Your task to perform on an android device: see tabs open on other devices in the chrome app Image 0: 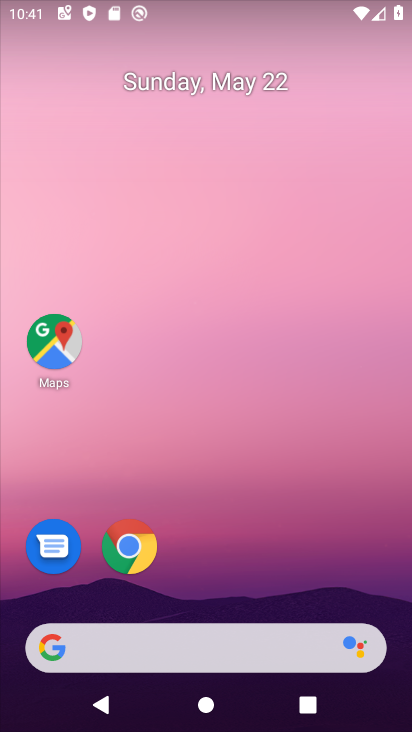
Step 0: drag from (215, 609) to (217, 25)
Your task to perform on an android device: see tabs open on other devices in the chrome app Image 1: 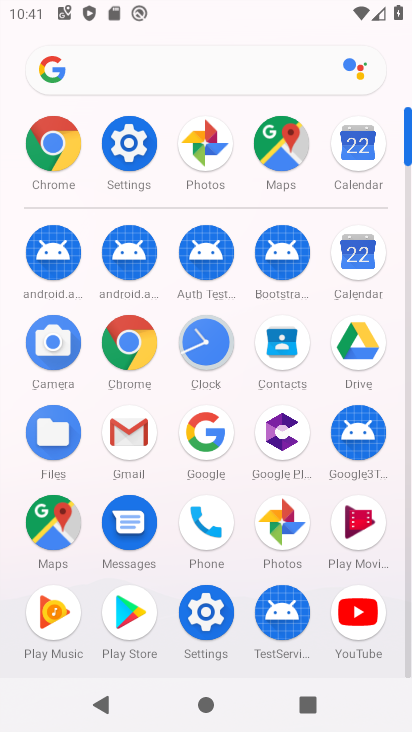
Step 1: click (132, 354)
Your task to perform on an android device: see tabs open on other devices in the chrome app Image 2: 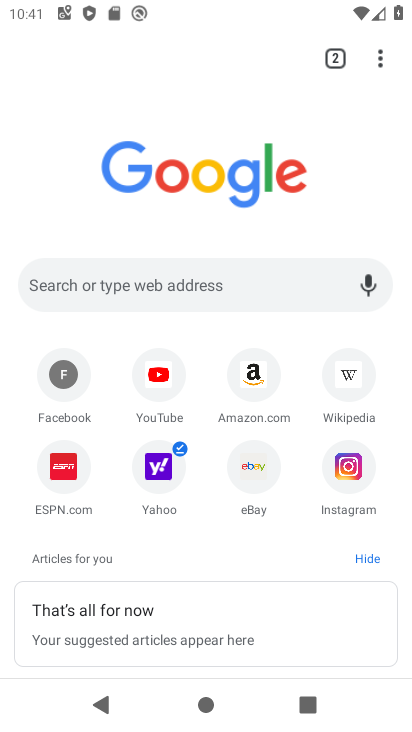
Step 2: click (381, 63)
Your task to perform on an android device: see tabs open on other devices in the chrome app Image 3: 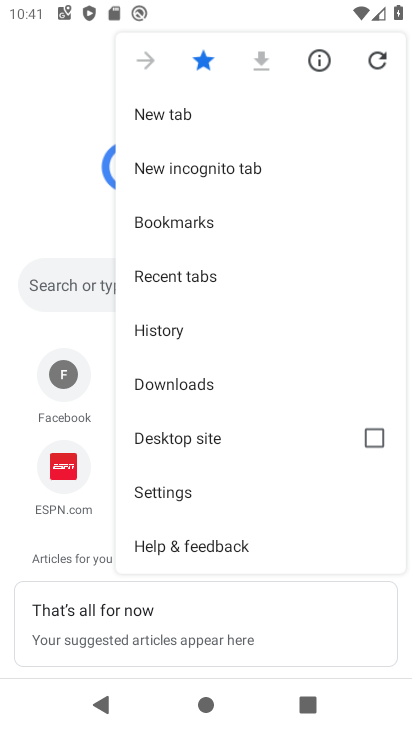
Step 3: click (196, 280)
Your task to perform on an android device: see tabs open on other devices in the chrome app Image 4: 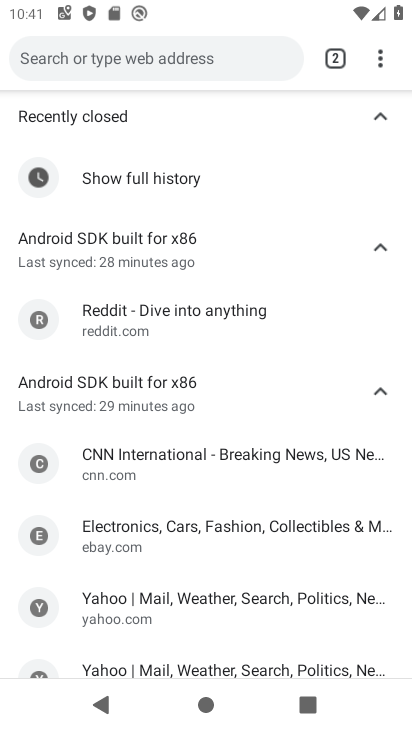
Step 4: task complete